Your task to perform on an android device: Go to Maps Image 0: 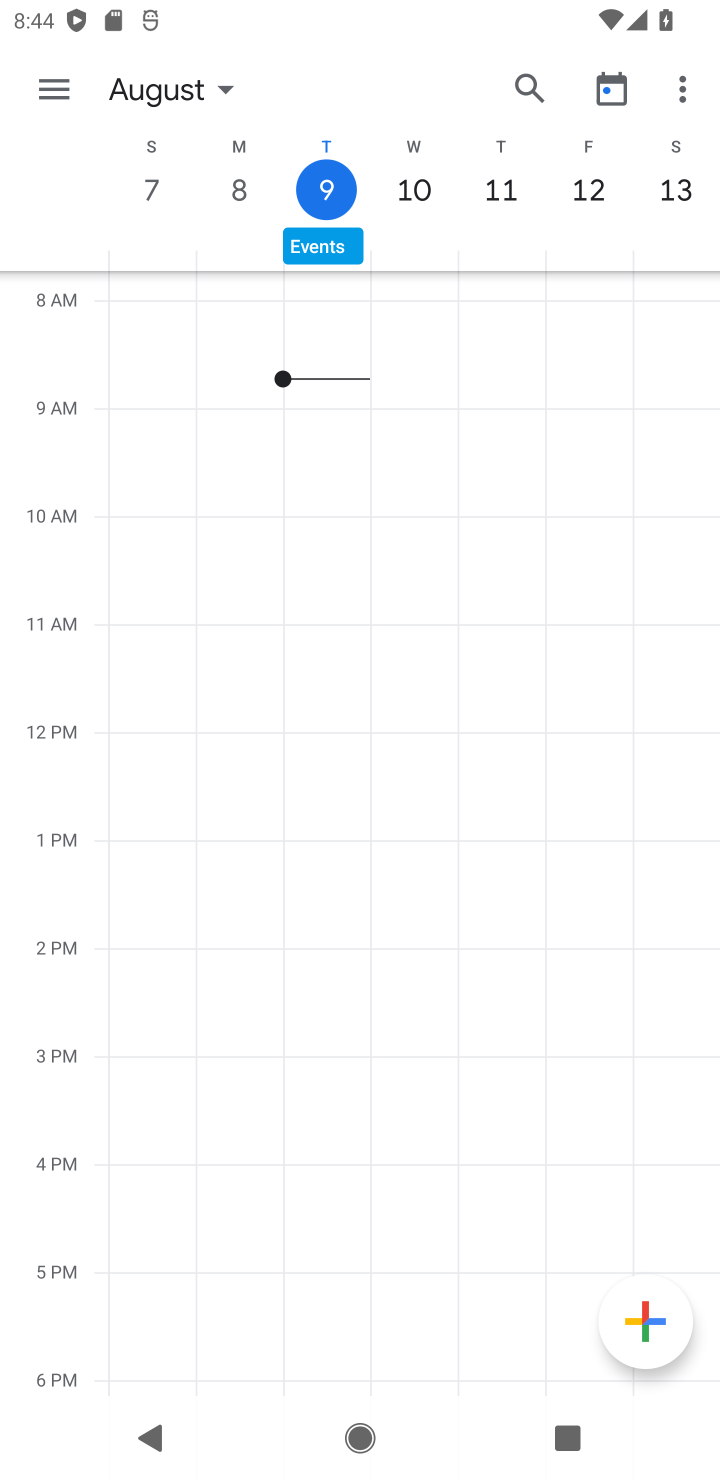
Step 0: press home button
Your task to perform on an android device: Go to Maps Image 1: 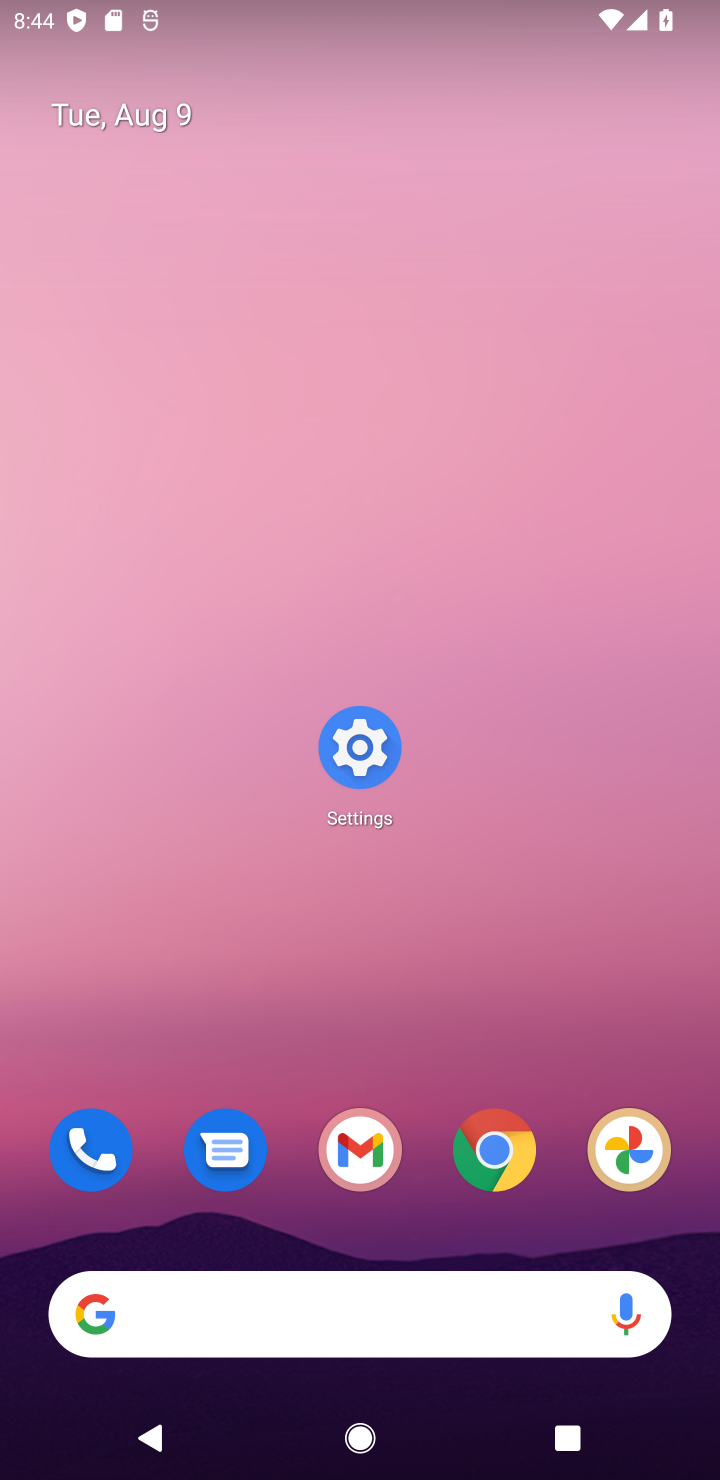
Step 1: drag from (331, 1314) to (482, 168)
Your task to perform on an android device: Go to Maps Image 2: 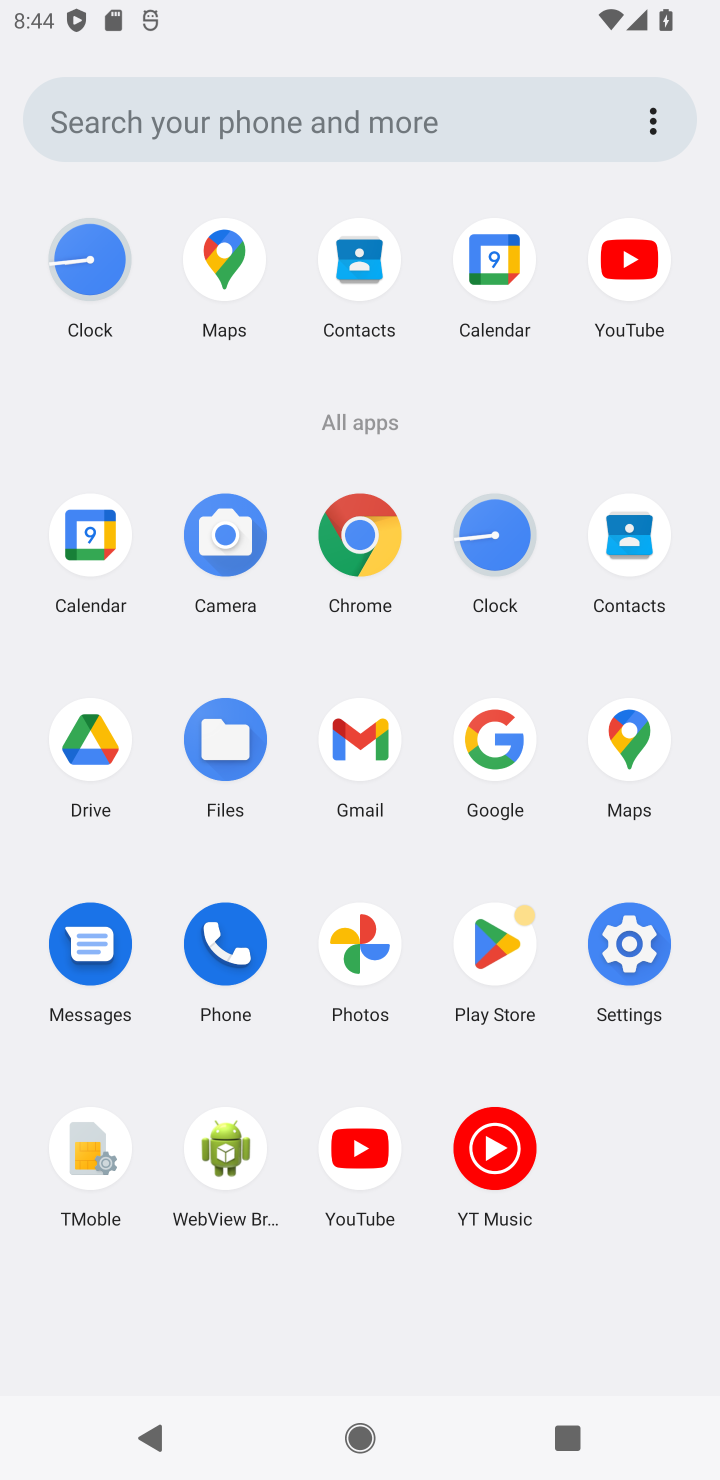
Step 2: click (654, 709)
Your task to perform on an android device: Go to Maps Image 3: 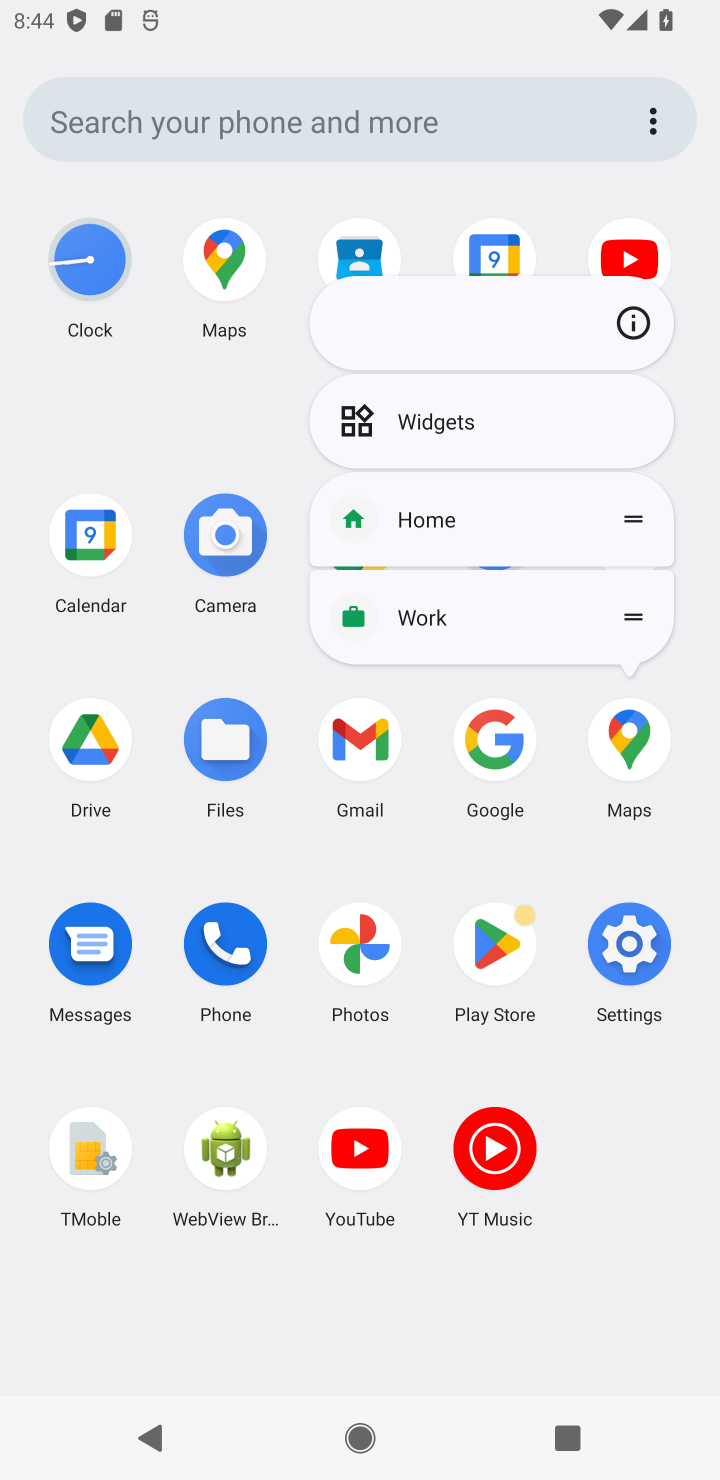
Step 3: click (639, 727)
Your task to perform on an android device: Go to Maps Image 4: 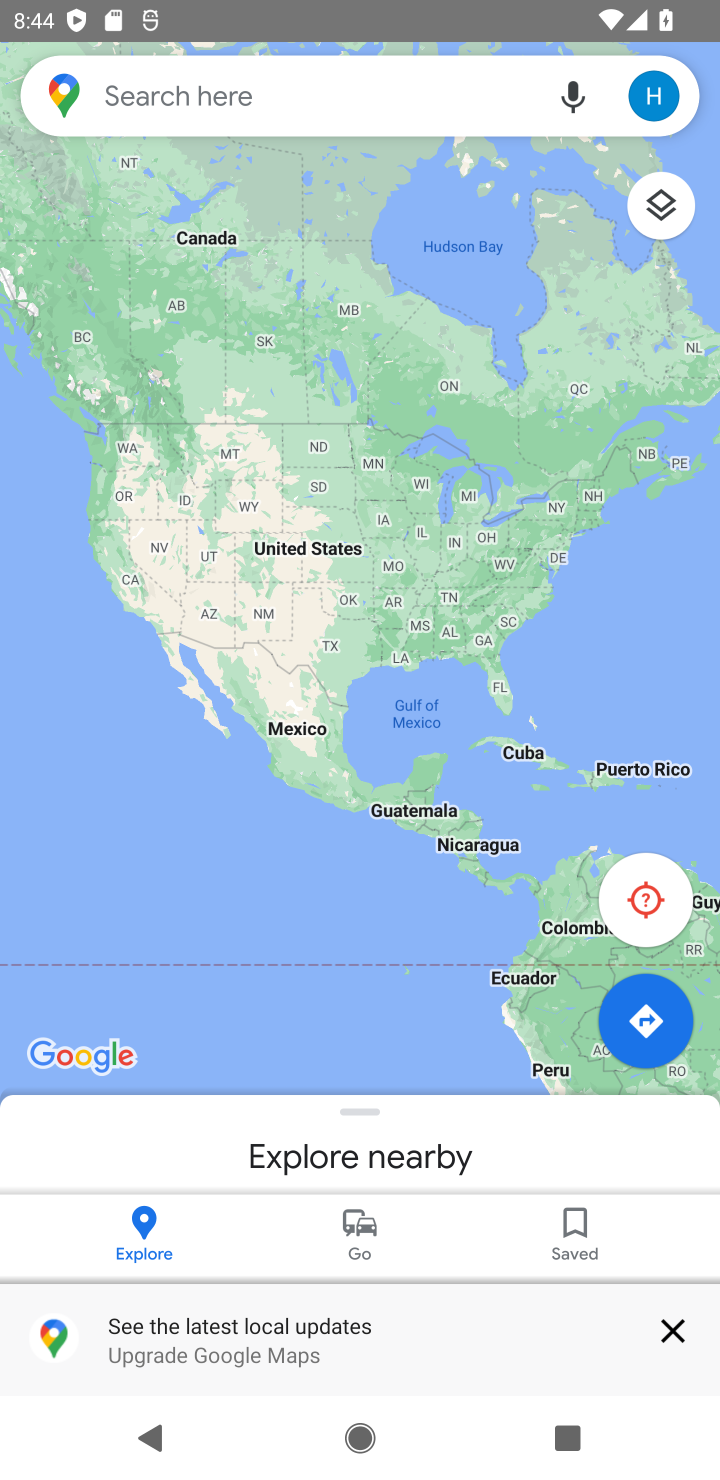
Step 4: task complete